Your task to perform on an android device: turn on the 12-hour format for clock Image 0: 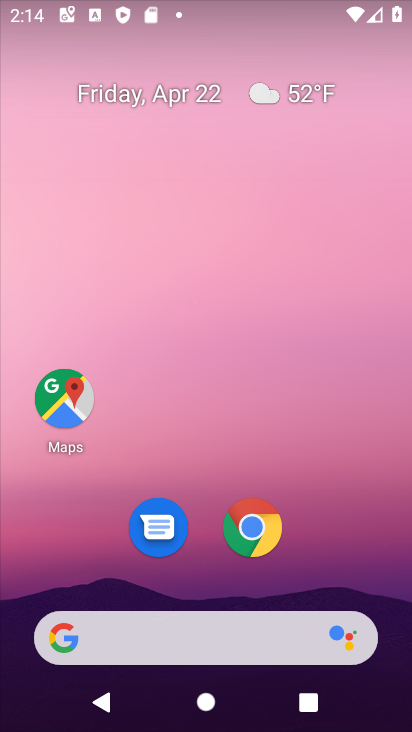
Step 0: drag from (354, 532) to (286, 121)
Your task to perform on an android device: turn on the 12-hour format for clock Image 1: 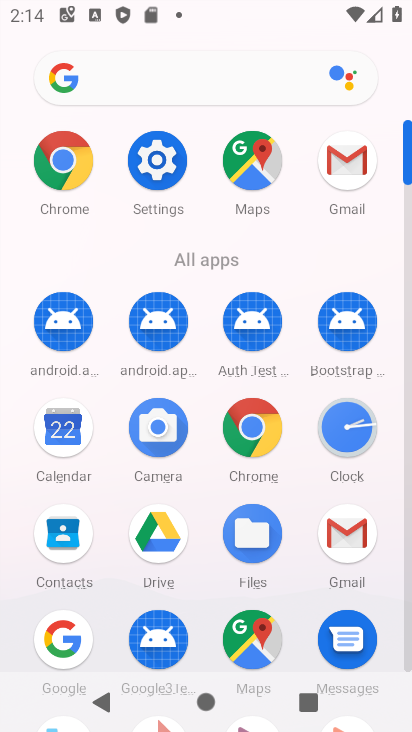
Step 1: click (354, 431)
Your task to perform on an android device: turn on the 12-hour format for clock Image 2: 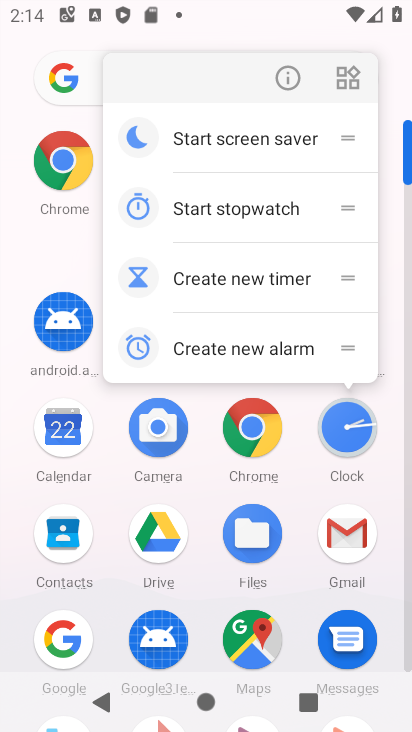
Step 2: click (355, 436)
Your task to perform on an android device: turn on the 12-hour format for clock Image 3: 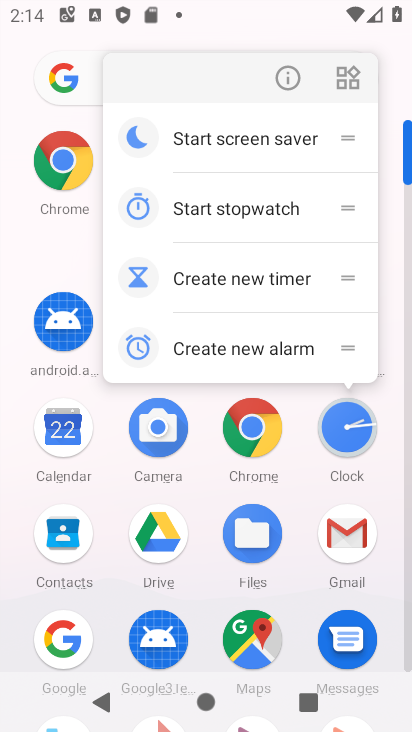
Step 3: click (355, 436)
Your task to perform on an android device: turn on the 12-hour format for clock Image 4: 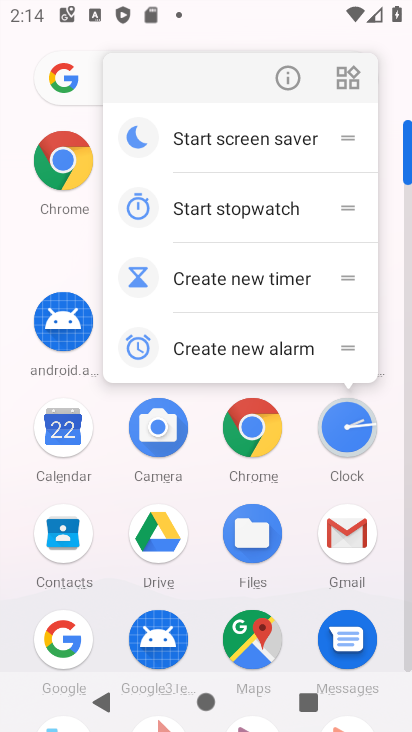
Step 4: click (355, 435)
Your task to perform on an android device: turn on the 12-hour format for clock Image 5: 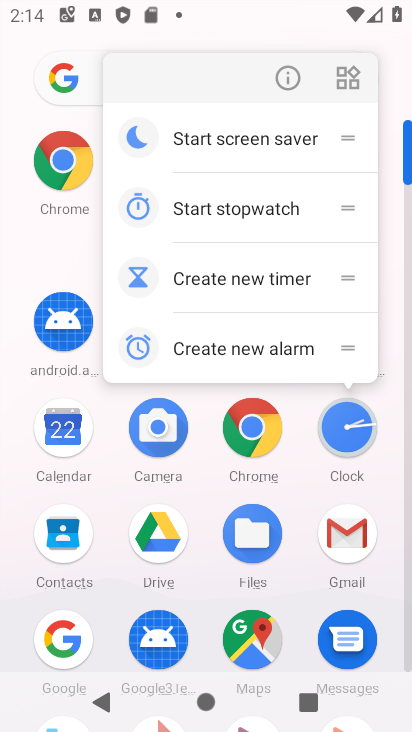
Step 5: click (345, 418)
Your task to perform on an android device: turn on the 12-hour format for clock Image 6: 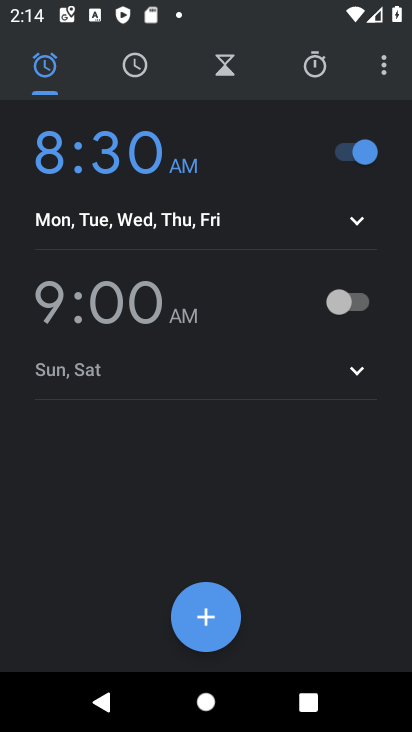
Step 6: click (386, 58)
Your task to perform on an android device: turn on the 12-hour format for clock Image 7: 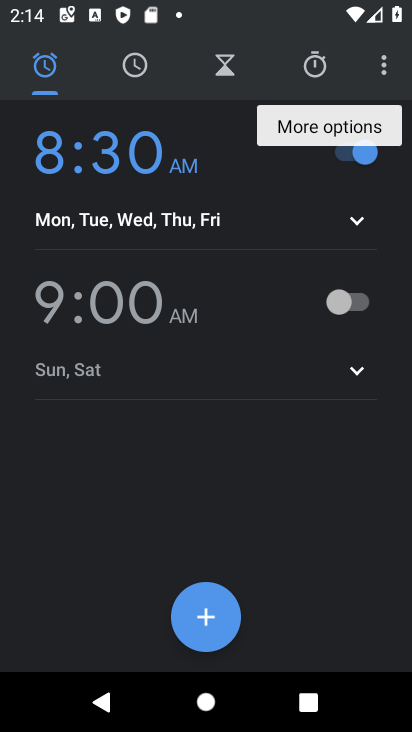
Step 7: click (388, 56)
Your task to perform on an android device: turn on the 12-hour format for clock Image 8: 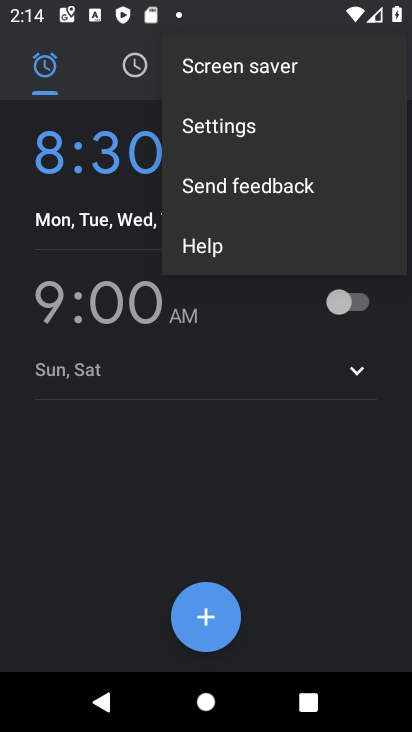
Step 8: click (191, 132)
Your task to perform on an android device: turn on the 12-hour format for clock Image 9: 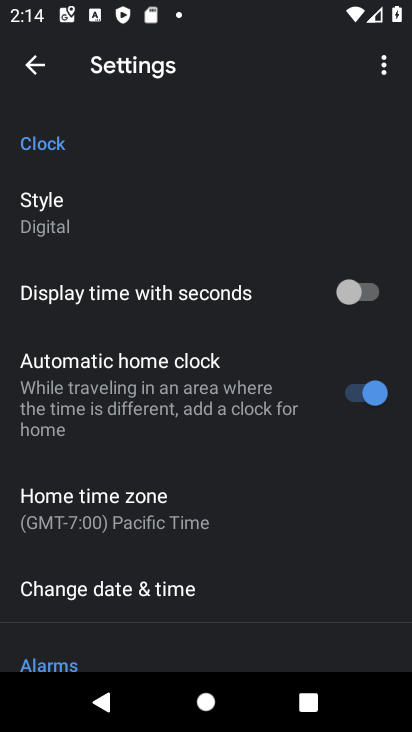
Step 9: drag from (192, 502) to (132, 222)
Your task to perform on an android device: turn on the 12-hour format for clock Image 10: 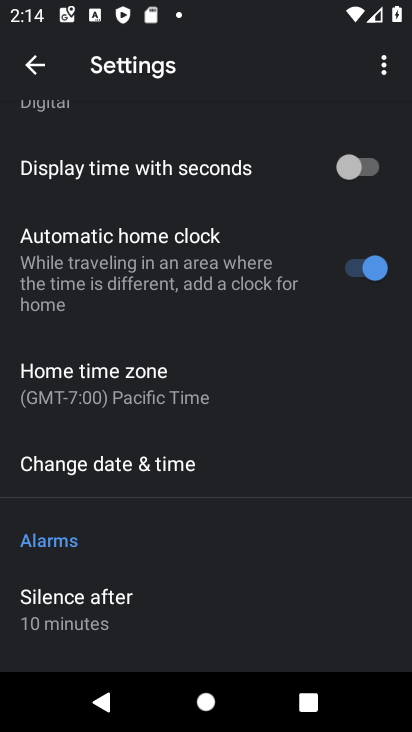
Step 10: click (153, 456)
Your task to perform on an android device: turn on the 12-hour format for clock Image 11: 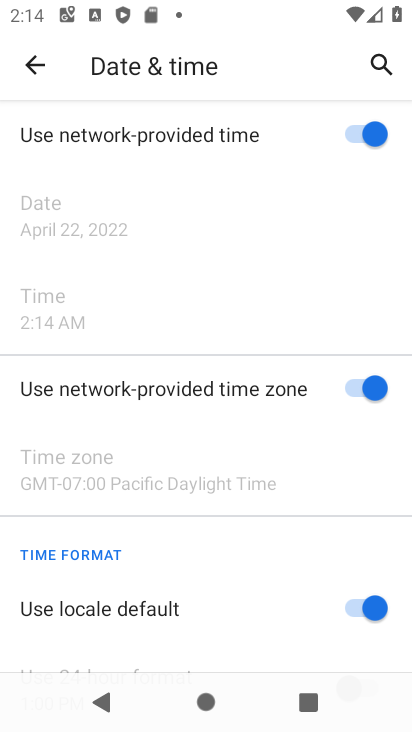
Step 11: drag from (251, 551) to (193, 215)
Your task to perform on an android device: turn on the 12-hour format for clock Image 12: 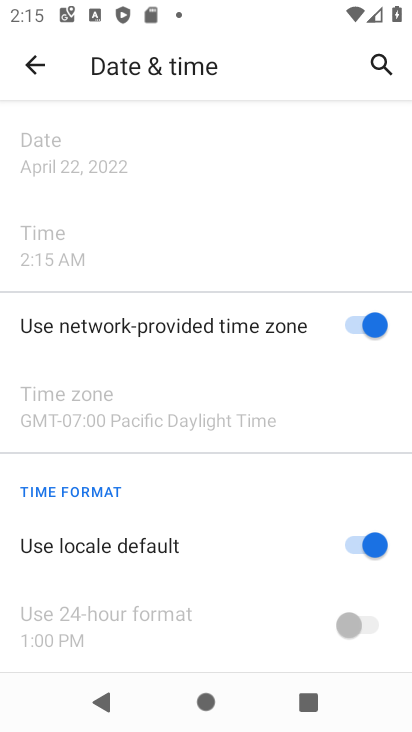
Step 12: click (349, 539)
Your task to perform on an android device: turn on the 12-hour format for clock Image 13: 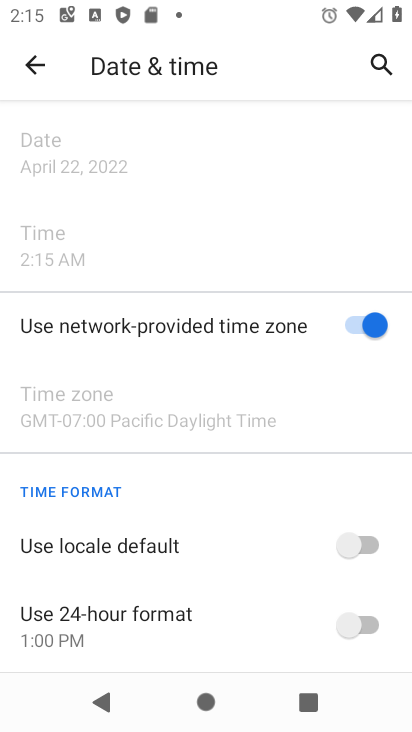
Step 13: task complete